Your task to perform on an android device: Search for the best rated kitchen reno kits on Lowes.com Image 0: 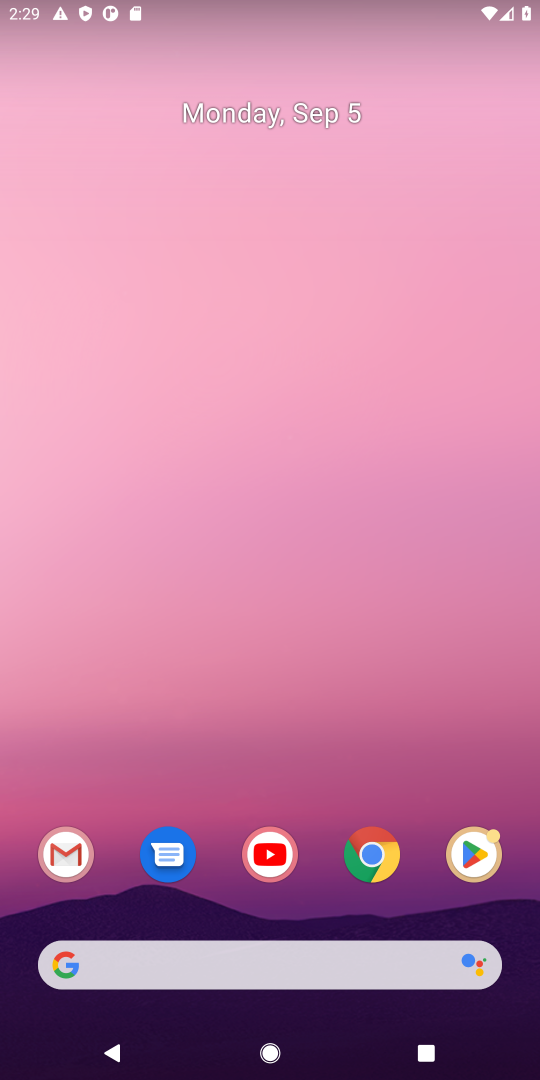
Step 0: click (365, 959)
Your task to perform on an android device: Search for the best rated kitchen reno kits on Lowes.com Image 1: 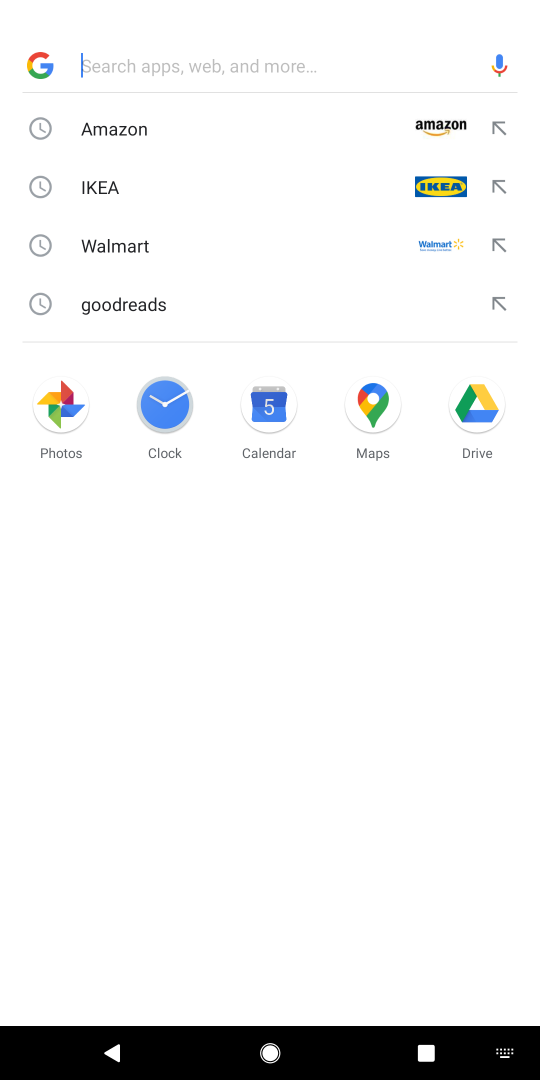
Step 1: type "lowes.com"
Your task to perform on an android device: Search for the best rated kitchen reno kits on Lowes.com Image 2: 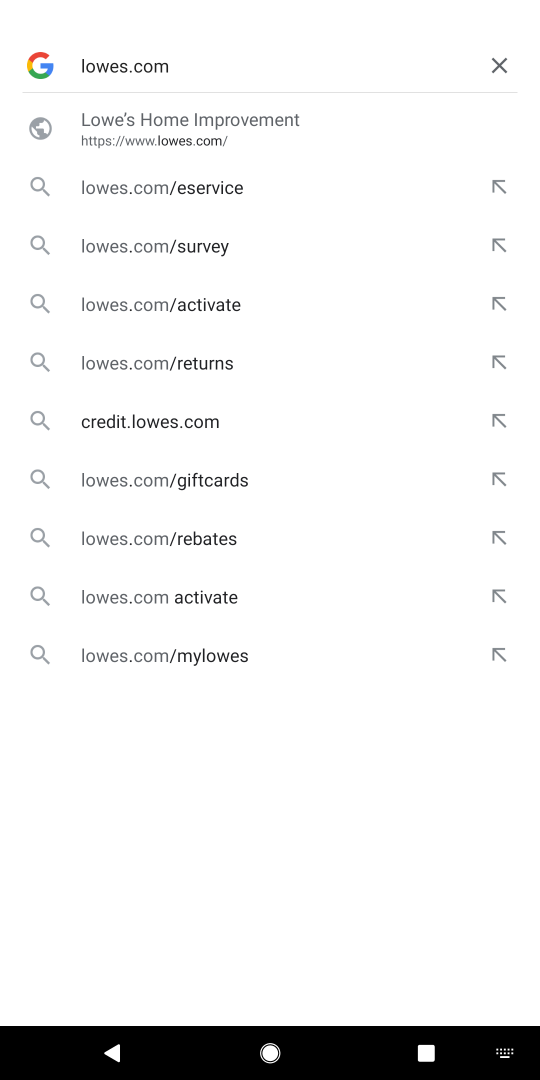
Step 2: press enter
Your task to perform on an android device: Search for the best rated kitchen reno kits on Lowes.com Image 3: 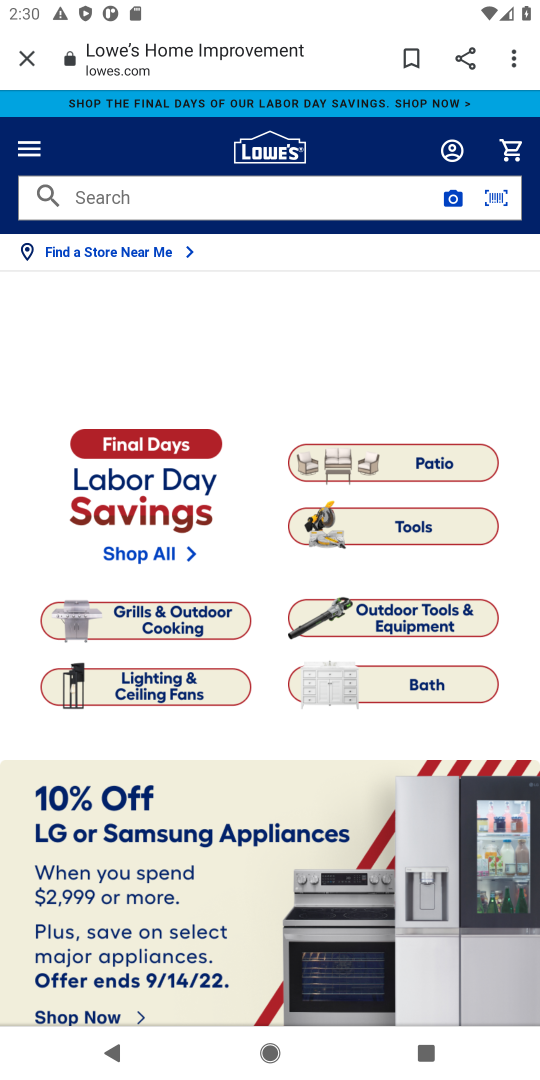
Step 3: click (161, 195)
Your task to perform on an android device: Search for the best rated kitchen reno kits on Lowes.com Image 4: 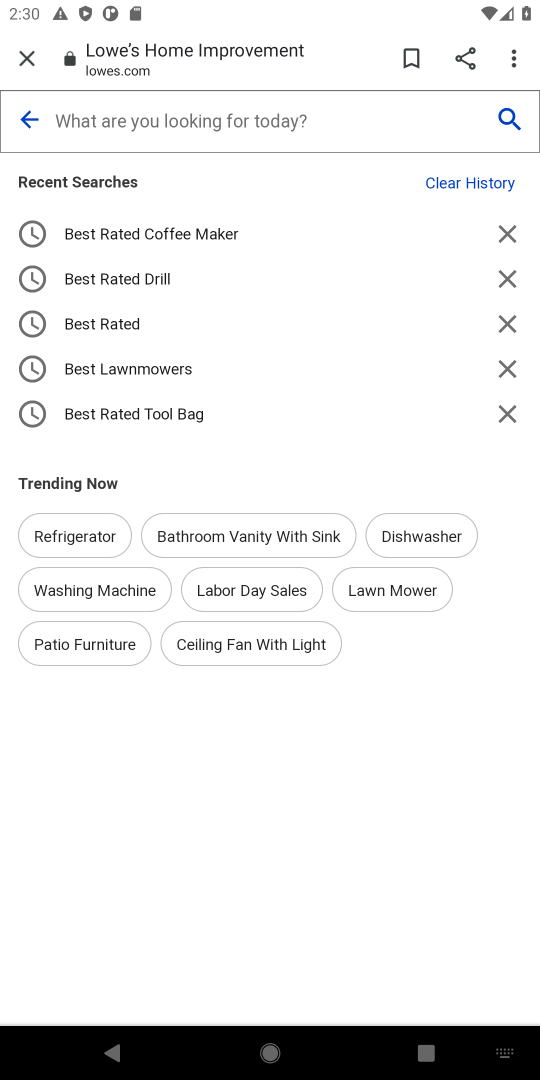
Step 4: type "best rated kitchen reno kits"
Your task to perform on an android device: Search for the best rated kitchen reno kits on Lowes.com Image 5: 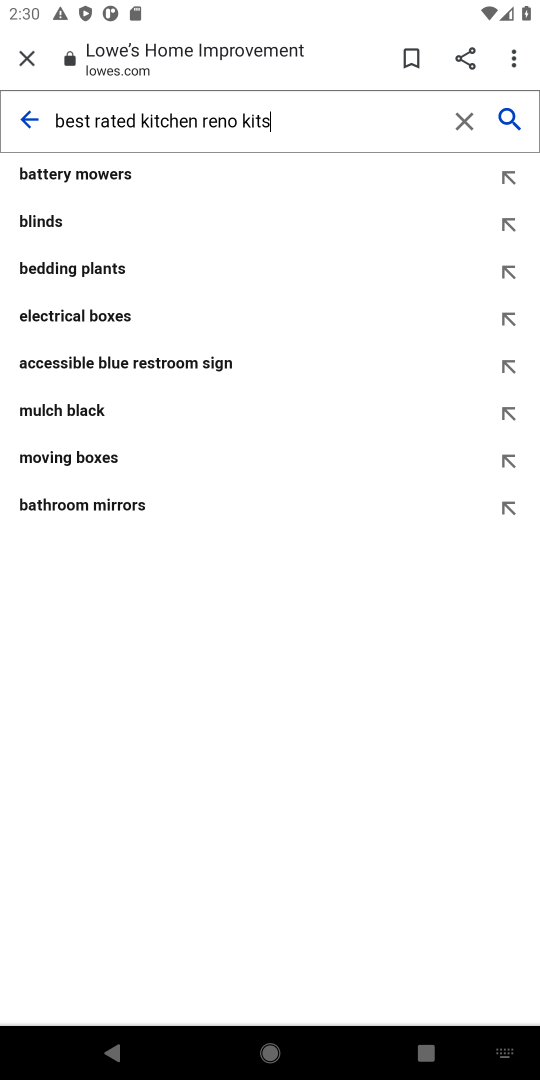
Step 5: press enter
Your task to perform on an android device: Search for the best rated kitchen reno kits on Lowes.com Image 6: 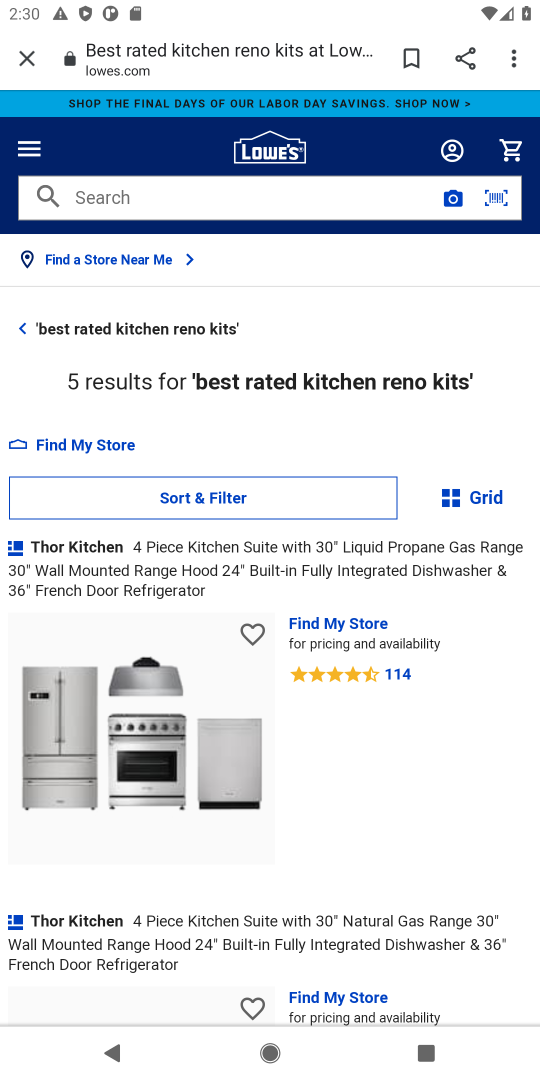
Step 6: task complete